Your task to perform on an android device: open app "Adobe Acrobat Reader: Edit PDF" (install if not already installed) Image 0: 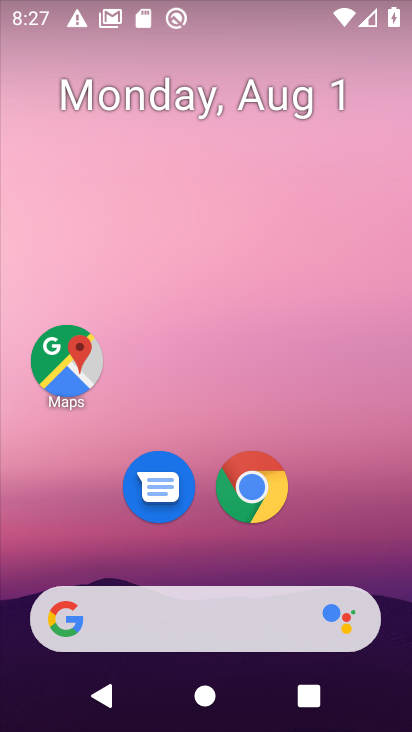
Step 0: press home button
Your task to perform on an android device: open app "Adobe Acrobat Reader: Edit PDF" (install if not already installed) Image 1: 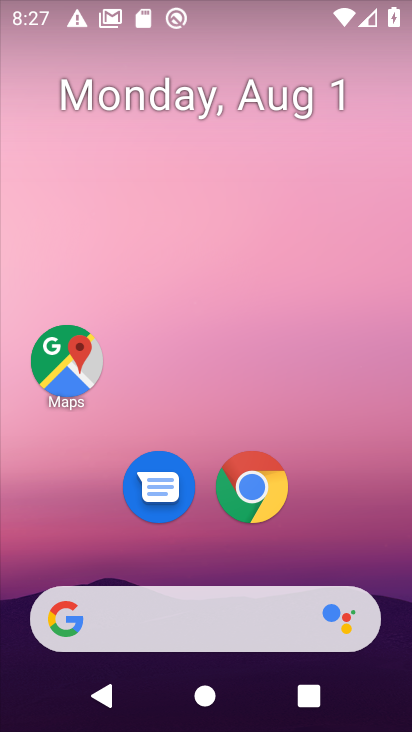
Step 1: drag from (368, 550) to (351, 87)
Your task to perform on an android device: open app "Adobe Acrobat Reader: Edit PDF" (install if not already installed) Image 2: 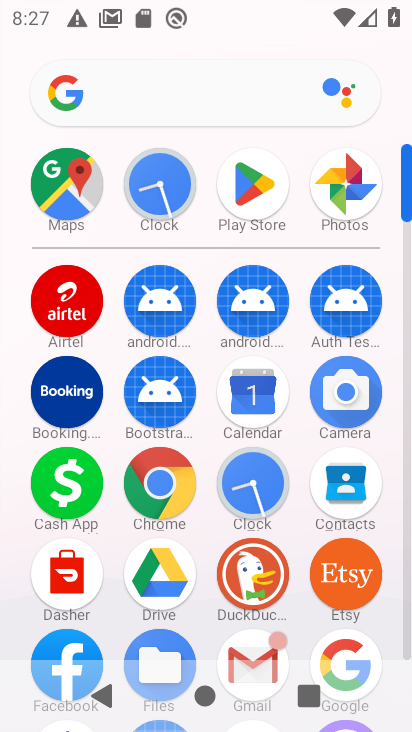
Step 2: click (260, 199)
Your task to perform on an android device: open app "Adobe Acrobat Reader: Edit PDF" (install if not already installed) Image 3: 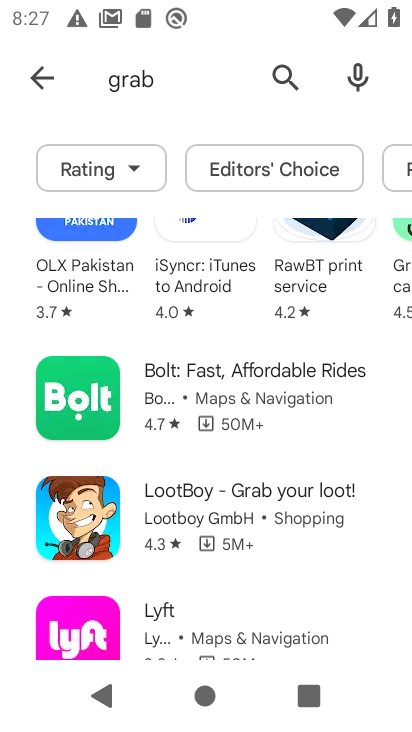
Step 3: click (283, 71)
Your task to perform on an android device: open app "Adobe Acrobat Reader: Edit PDF" (install if not already installed) Image 4: 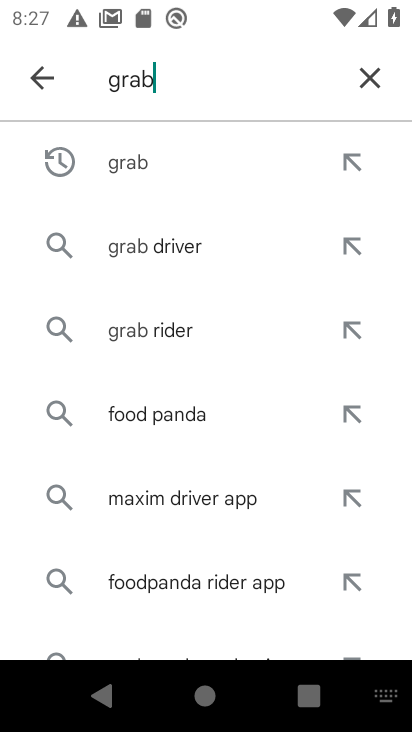
Step 4: click (365, 74)
Your task to perform on an android device: open app "Adobe Acrobat Reader: Edit PDF" (install if not already installed) Image 5: 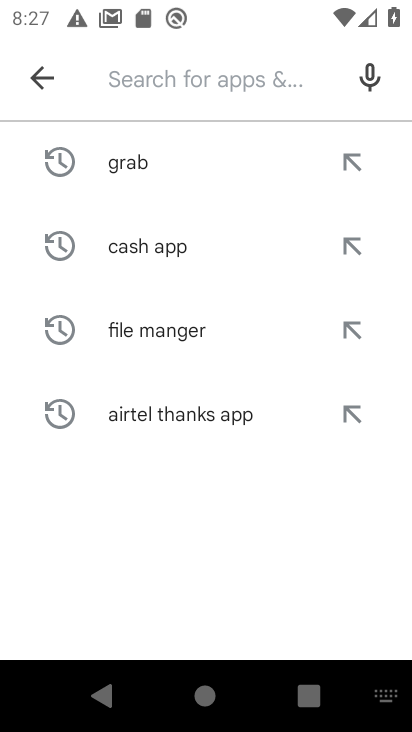
Step 5: type "Adobe Acrobat Reader: Edit PDF"
Your task to perform on an android device: open app "Adobe Acrobat Reader: Edit PDF" (install if not already installed) Image 6: 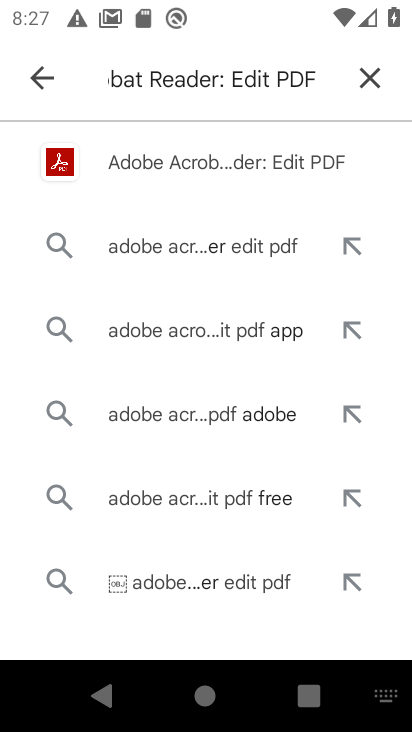
Step 6: click (329, 160)
Your task to perform on an android device: open app "Adobe Acrobat Reader: Edit PDF" (install if not already installed) Image 7: 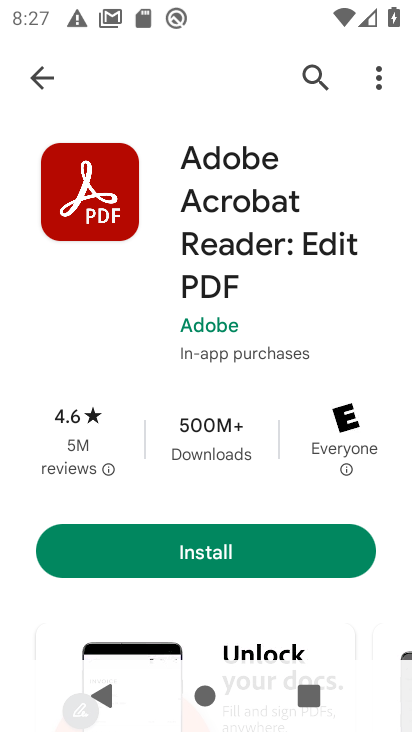
Step 7: click (254, 550)
Your task to perform on an android device: open app "Adobe Acrobat Reader: Edit PDF" (install if not already installed) Image 8: 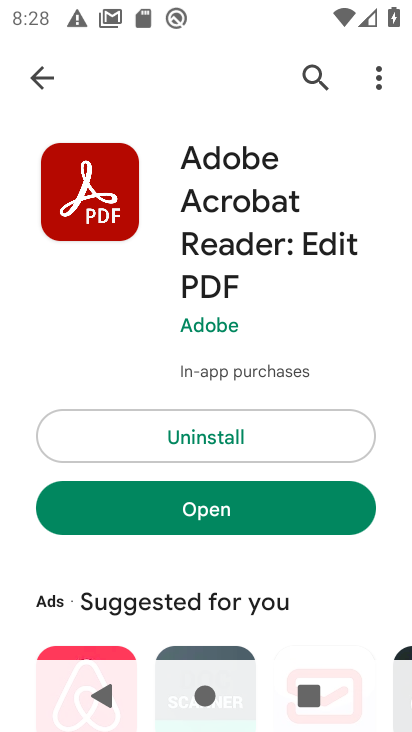
Step 8: task complete